Your task to perform on an android device: Go to battery settings Image 0: 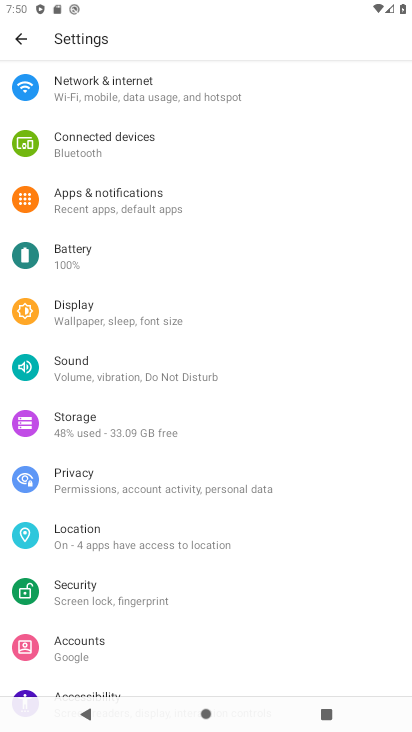
Step 0: click (136, 253)
Your task to perform on an android device: Go to battery settings Image 1: 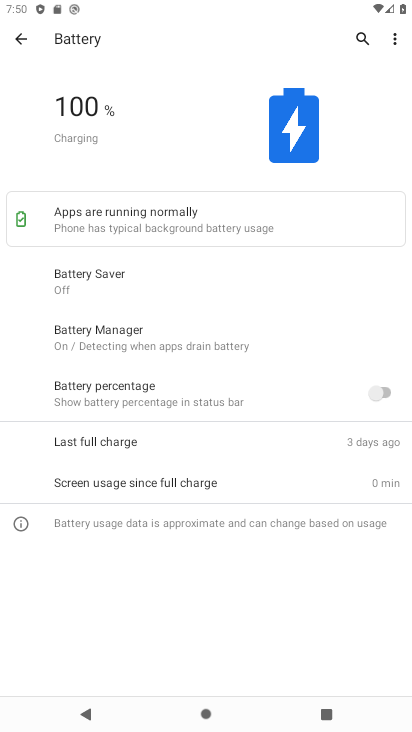
Step 1: click (387, 42)
Your task to perform on an android device: Go to battery settings Image 2: 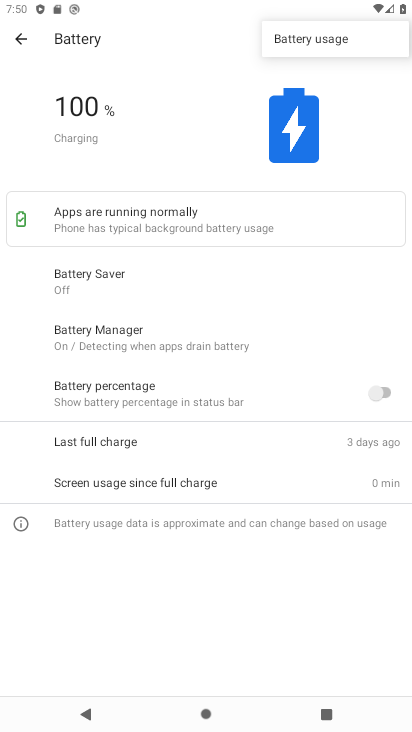
Step 2: click (363, 39)
Your task to perform on an android device: Go to battery settings Image 3: 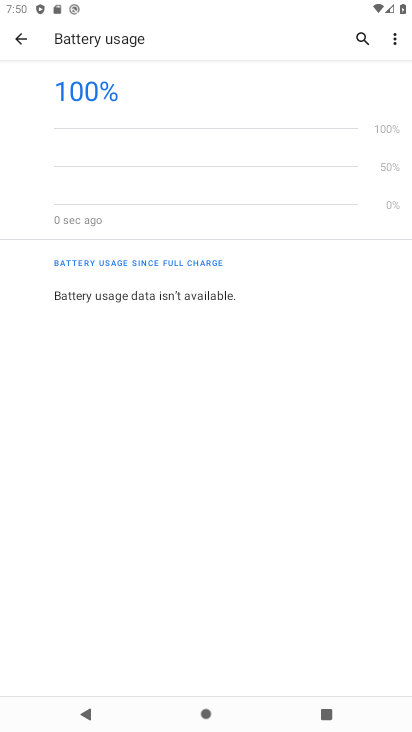
Step 3: task complete